Your task to perform on an android device: When is my next appointment? Image 0: 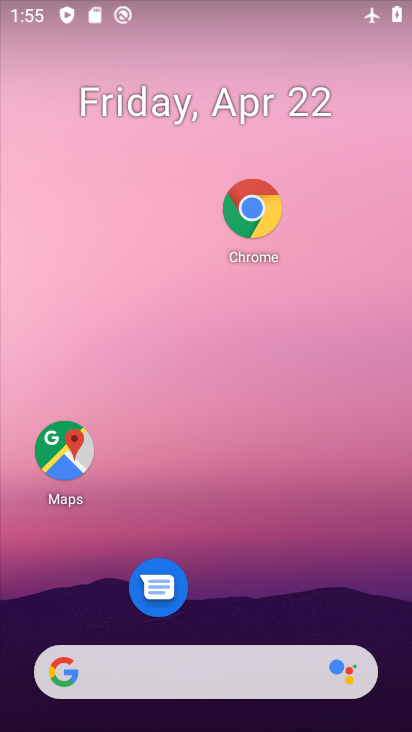
Step 0: drag from (205, 613) to (138, 27)
Your task to perform on an android device: When is my next appointment? Image 1: 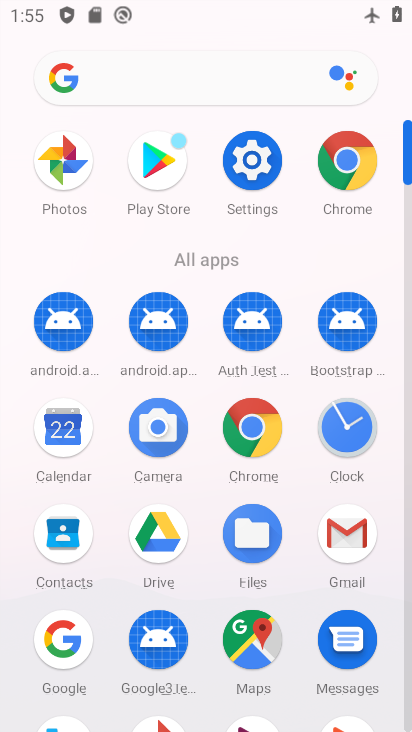
Step 1: drag from (220, 608) to (236, 335)
Your task to perform on an android device: When is my next appointment? Image 2: 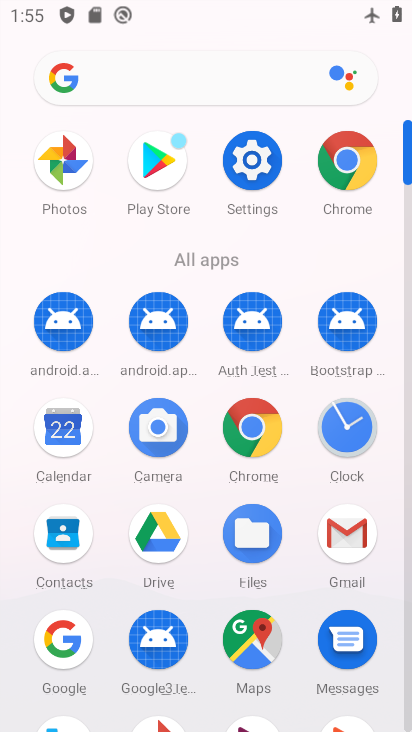
Step 2: click (62, 439)
Your task to perform on an android device: When is my next appointment? Image 3: 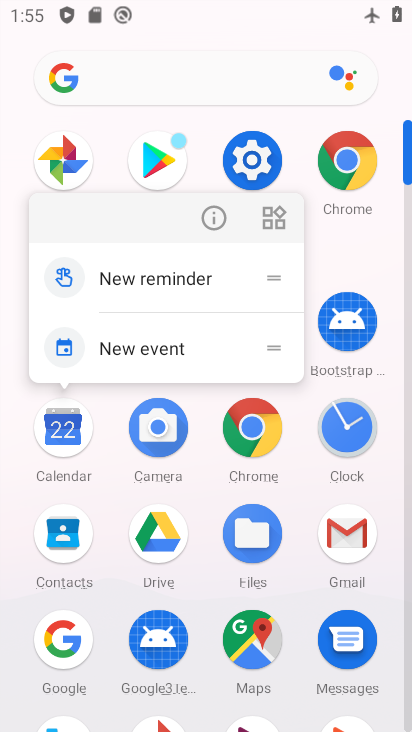
Step 3: click (204, 229)
Your task to perform on an android device: When is my next appointment? Image 4: 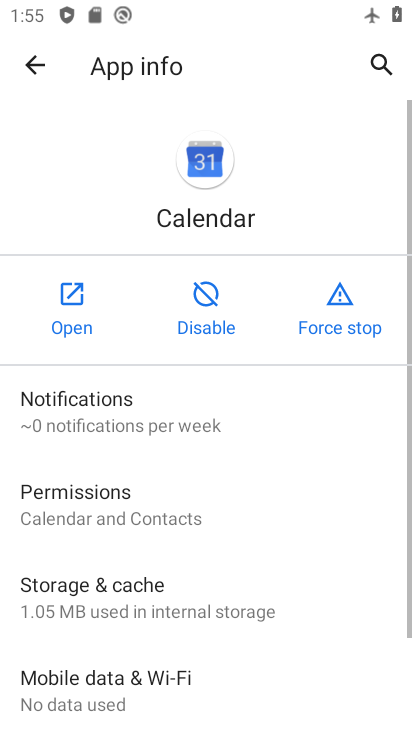
Step 4: click (51, 313)
Your task to perform on an android device: When is my next appointment? Image 5: 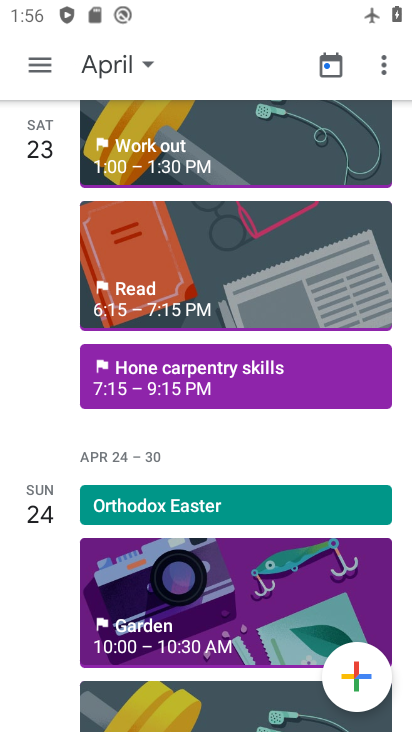
Step 5: drag from (281, 183) to (304, 584)
Your task to perform on an android device: When is my next appointment? Image 6: 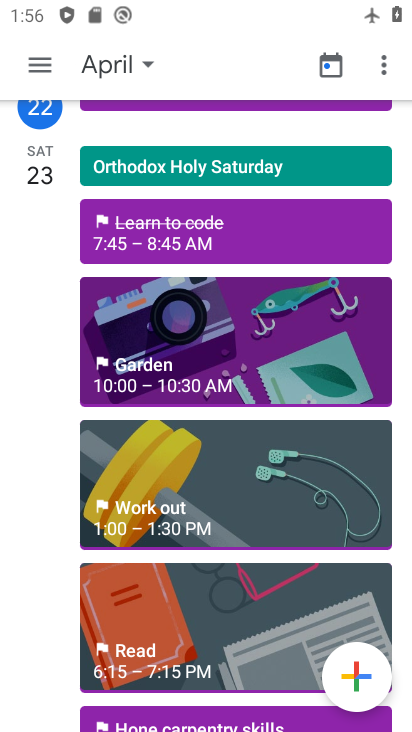
Step 6: drag from (298, 280) to (345, 567)
Your task to perform on an android device: When is my next appointment? Image 7: 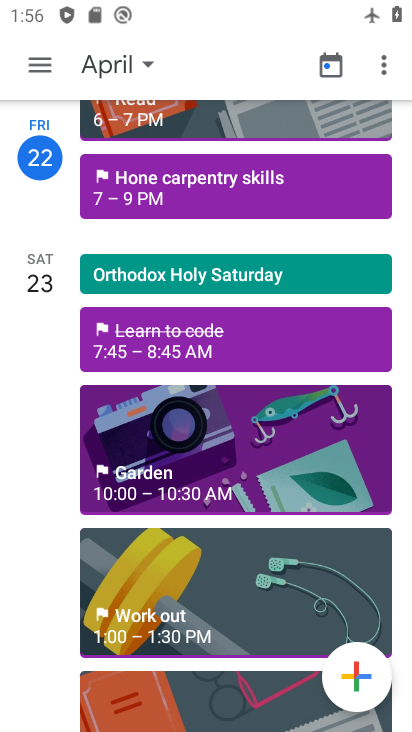
Step 7: click (119, 68)
Your task to perform on an android device: When is my next appointment? Image 8: 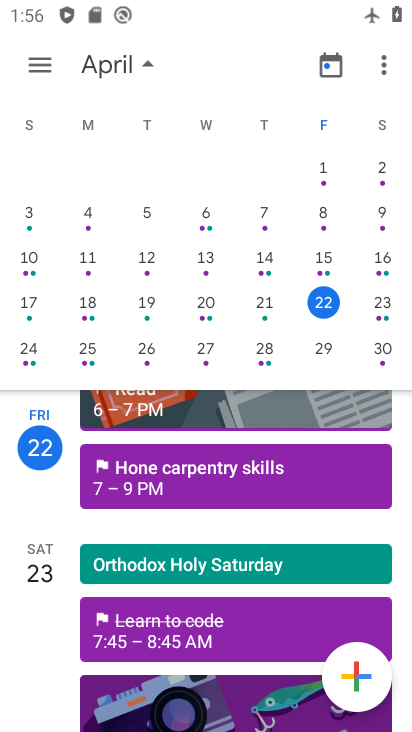
Step 8: task complete